Your task to perform on an android device: Open Wikipedia Image 0: 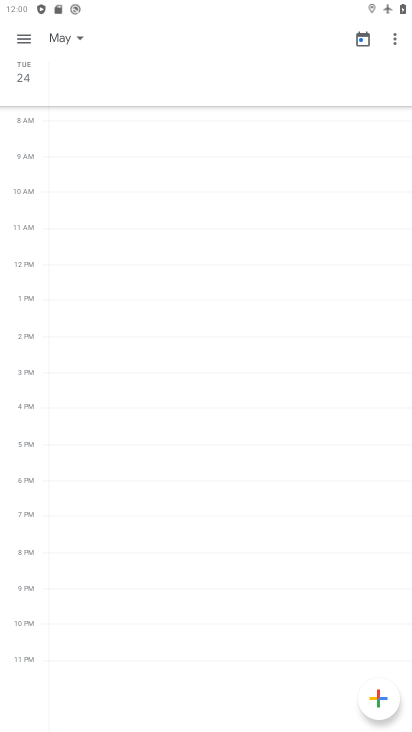
Step 0: press home button
Your task to perform on an android device: Open Wikipedia Image 1: 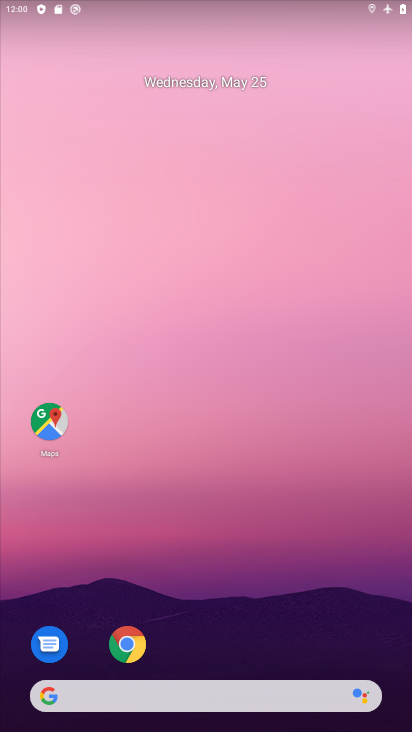
Step 1: click (130, 652)
Your task to perform on an android device: Open Wikipedia Image 2: 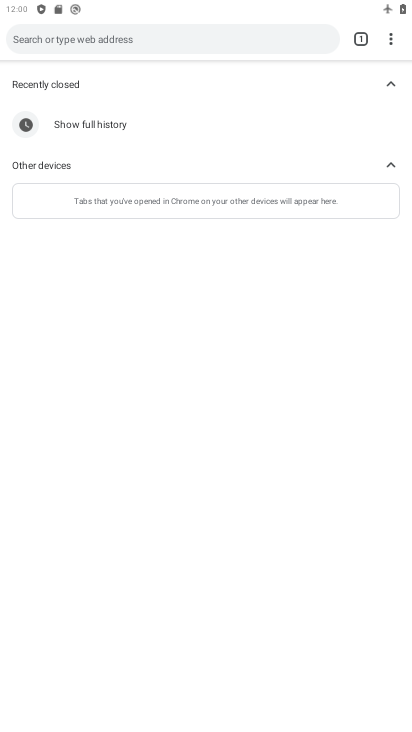
Step 2: click (396, 40)
Your task to perform on an android device: Open Wikipedia Image 3: 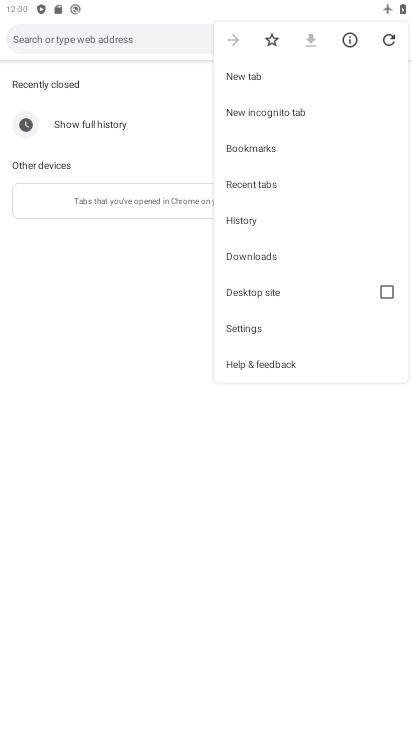
Step 3: click (250, 76)
Your task to perform on an android device: Open Wikipedia Image 4: 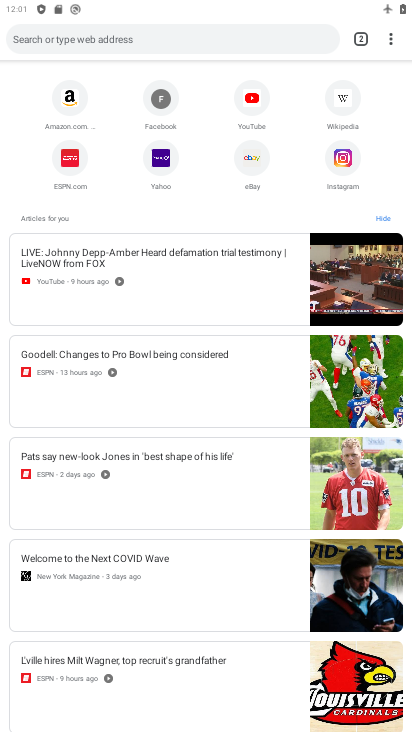
Step 4: click (344, 99)
Your task to perform on an android device: Open Wikipedia Image 5: 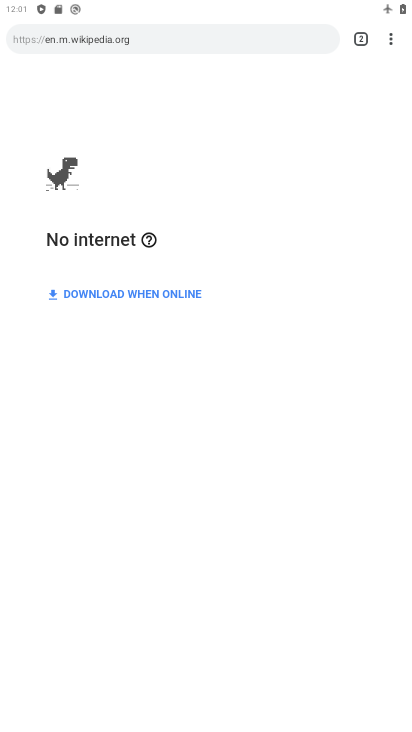
Step 5: task complete